Your task to perform on an android device: turn off airplane mode Image 0: 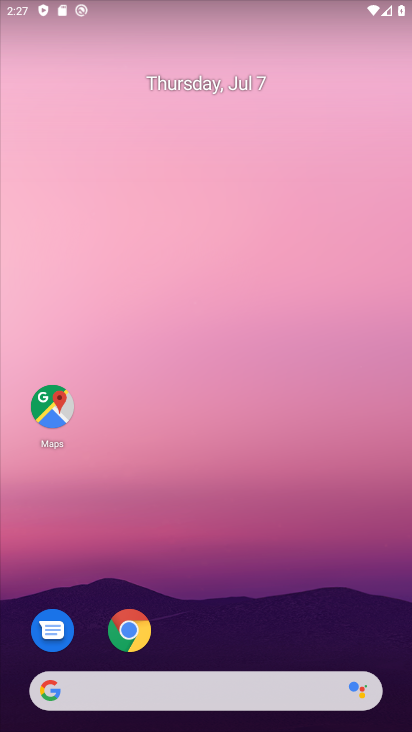
Step 0: drag from (234, 610) to (250, 288)
Your task to perform on an android device: turn off airplane mode Image 1: 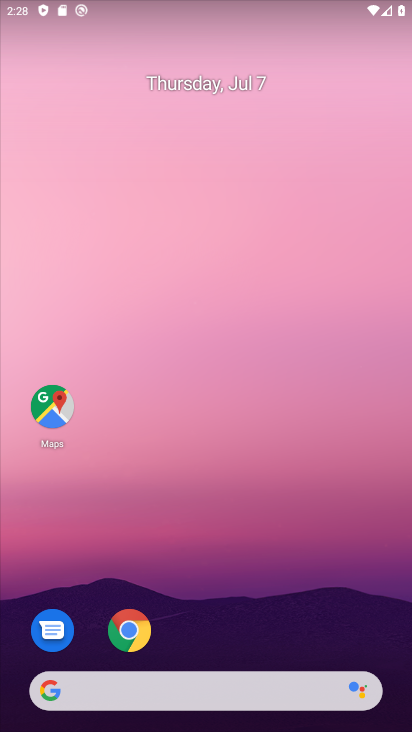
Step 1: drag from (276, 634) to (265, 266)
Your task to perform on an android device: turn off airplane mode Image 2: 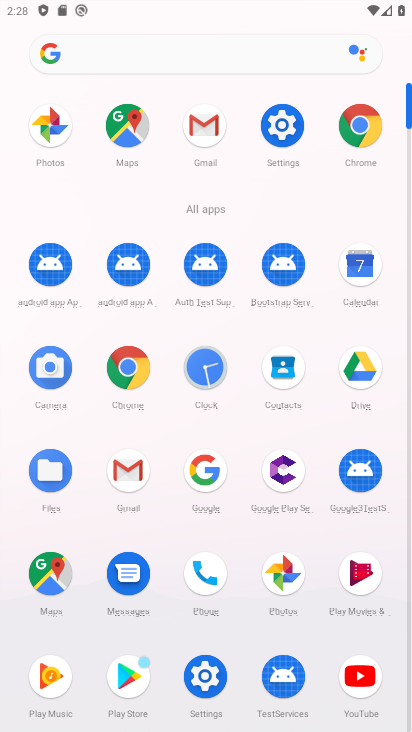
Step 2: click (283, 112)
Your task to perform on an android device: turn off airplane mode Image 3: 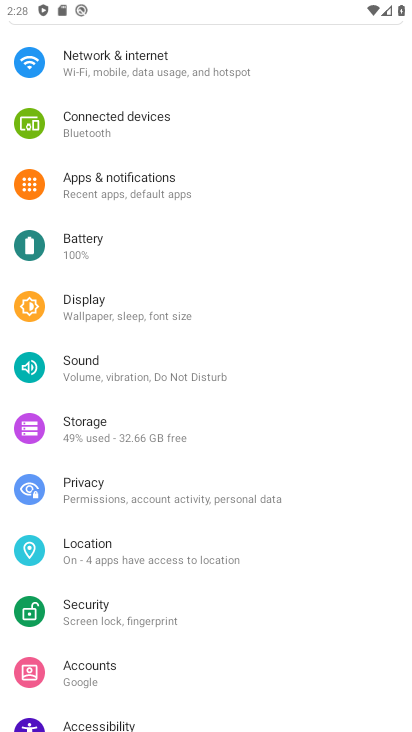
Step 3: drag from (265, 99) to (276, 455)
Your task to perform on an android device: turn off airplane mode Image 4: 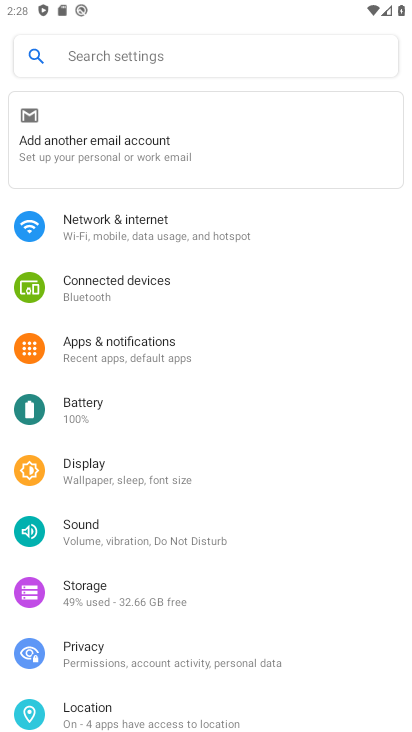
Step 4: click (166, 232)
Your task to perform on an android device: turn off airplane mode Image 5: 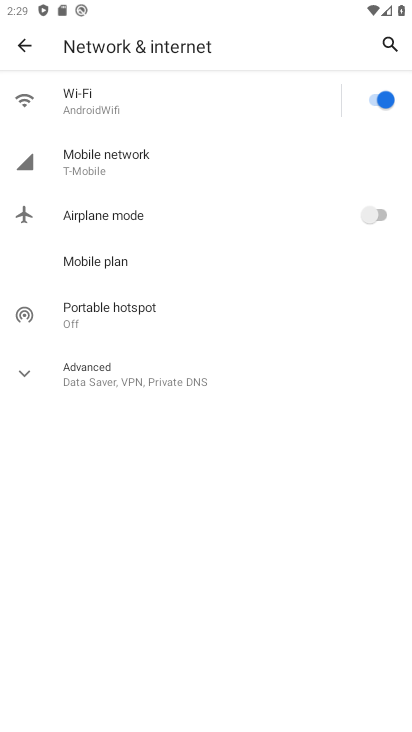
Step 5: task complete